Your task to perform on an android device: Go to Maps Image 0: 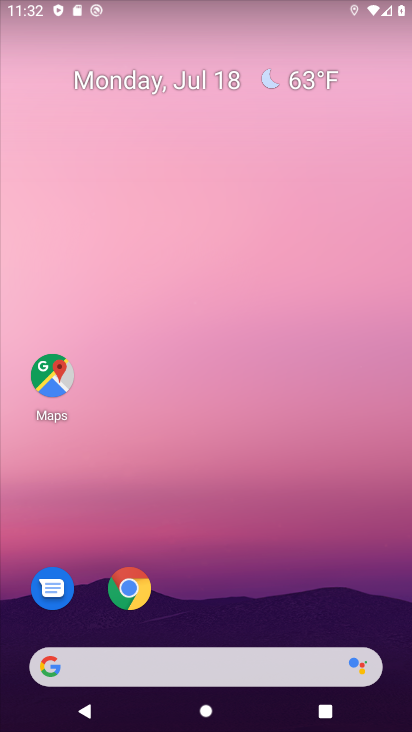
Step 0: drag from (258, 545) to (294, 1)
Your task to perform on an android device: Go to Maps Image 1: 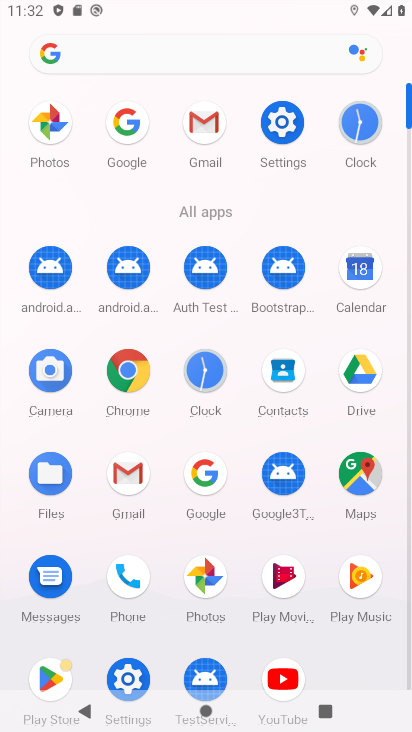
Step 1: click (362, 468)
Your task to perform on an android device: Go to Maps Image 2: 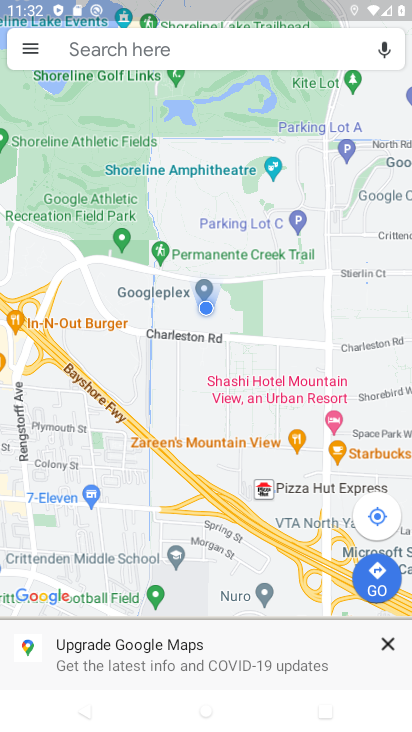
Step 2: click (386, 646)
Your task to perform on an android device: Go to Maps Image 3: 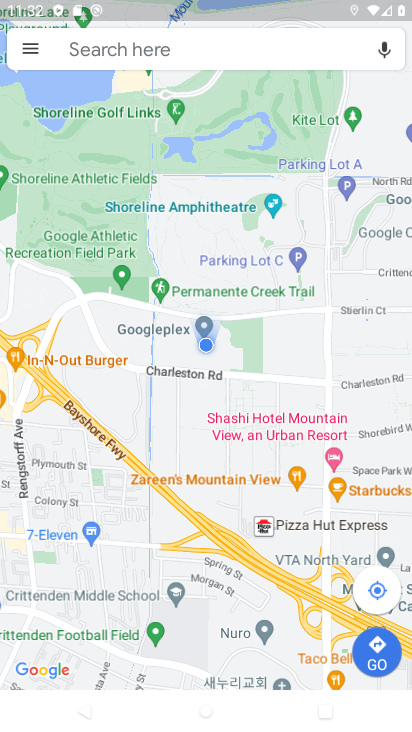
Step 3: task complete